Your task to perform on an android device: Open my contact list Image 0: 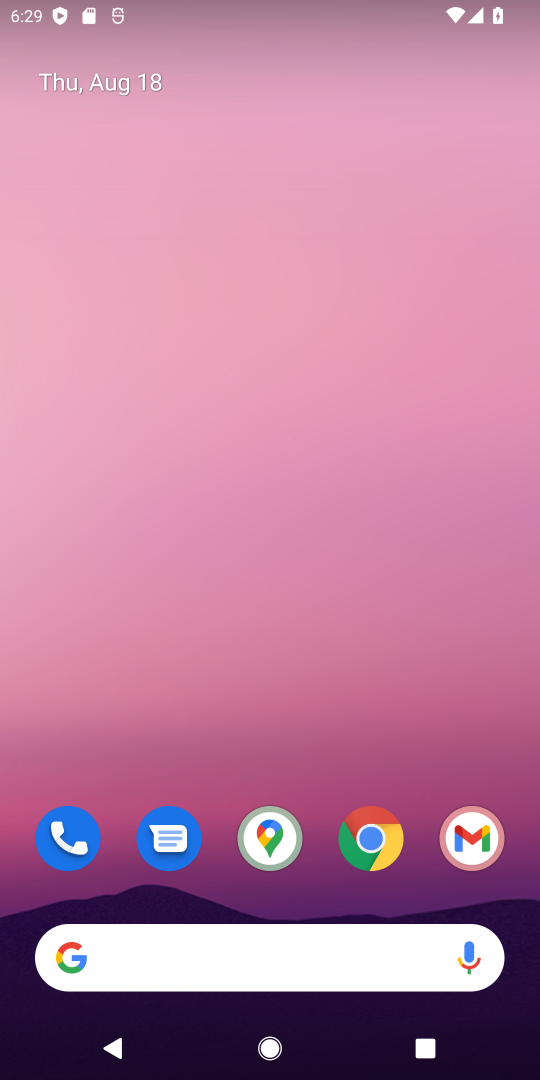
Step 0: press home button
Your task to perform on an android device: Open my contact list Image 1: 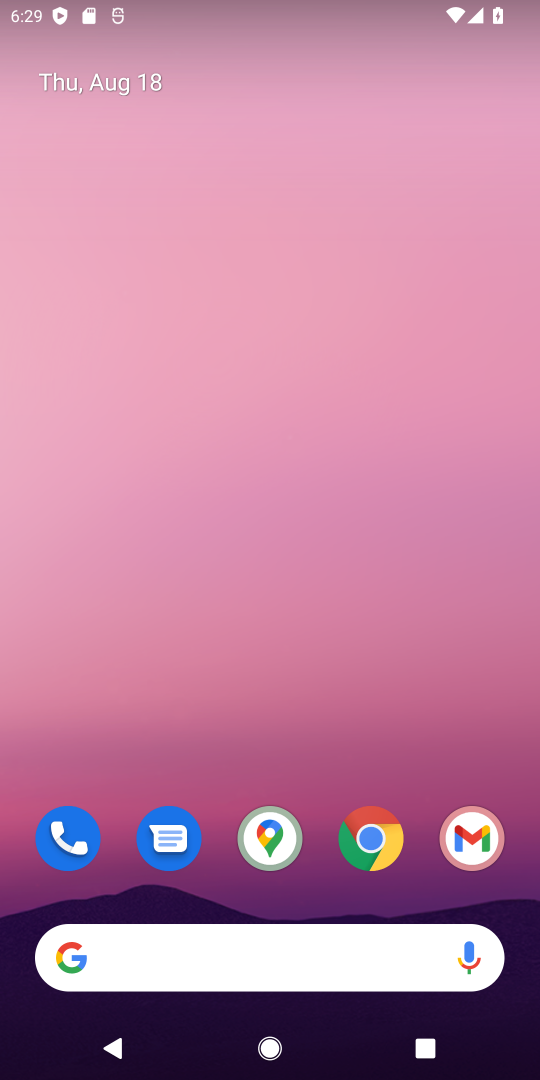
Step 1: drag from (300, 868) to (291, 139)
Your task to perform on an android device: Open my contact list Image 2: 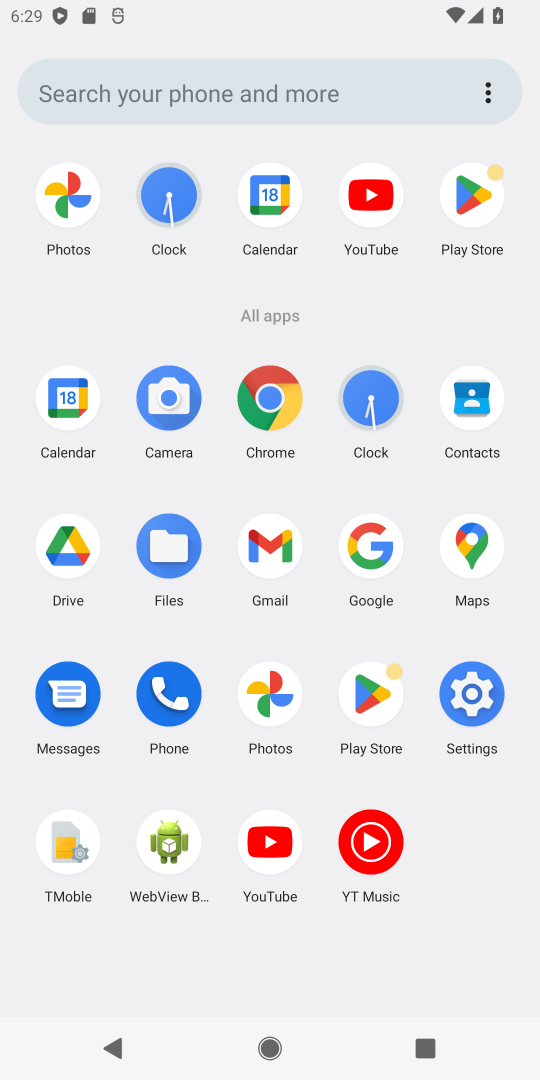
Step 2: click (474, 417)
Your task to perform on an android device: Open my contact list Image 3: 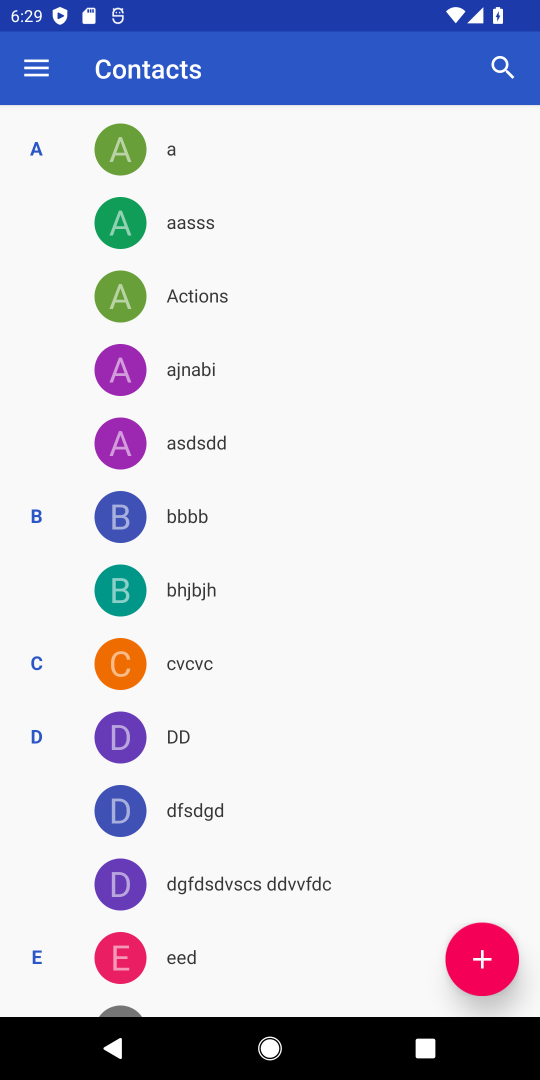
Step 3: task complete